Your task to perform on an android device: What is the news today? Image 0: 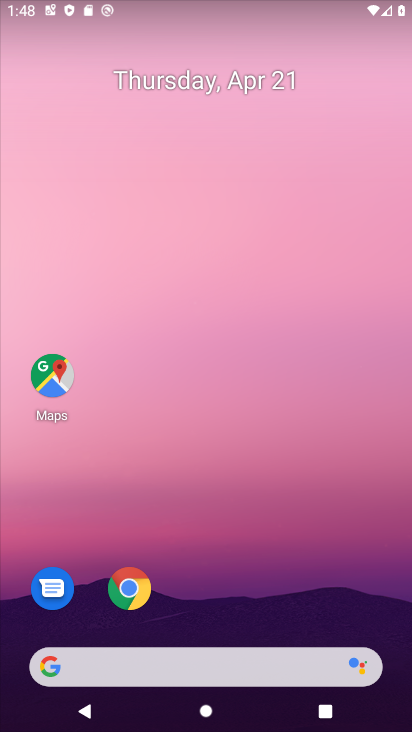
Step 0: drag from (260, 589) to (288, 108)
Your task to perform on an android device: What is the news today? Image 1: 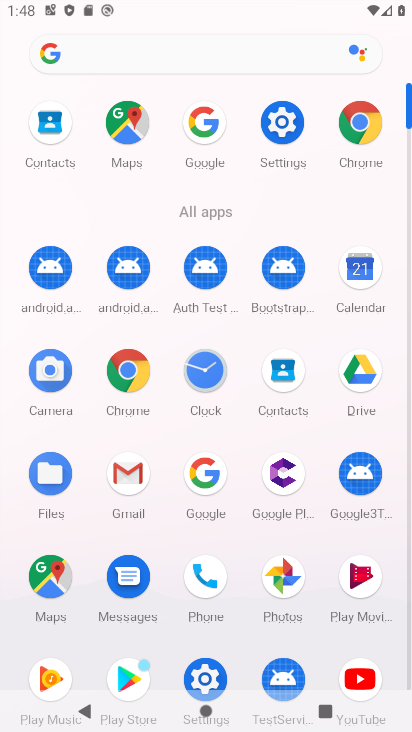
Step 1: click (220, 481)
Your task to perform on an android device: What is the news today? Image 2: 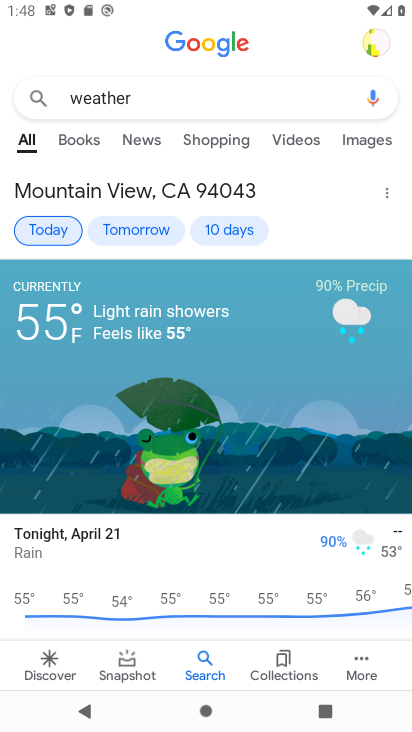
Step 2: click (143, 140)
Your task to perform on an android device: What is the news today? Image 3: 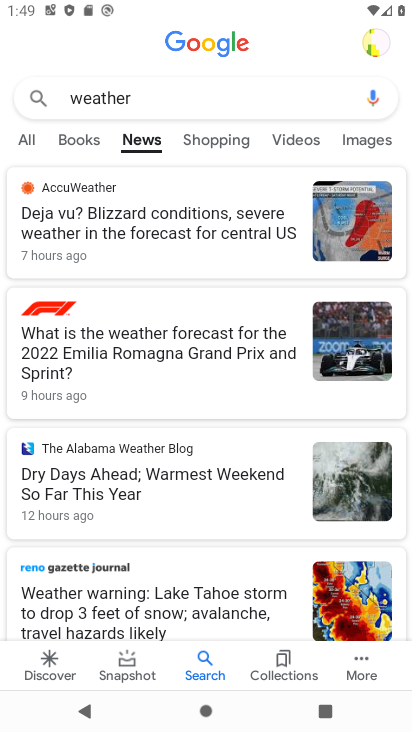
Step 3: task complete